Your task to perform on an android device: Search for sushi restaurants on Maps Image 0: 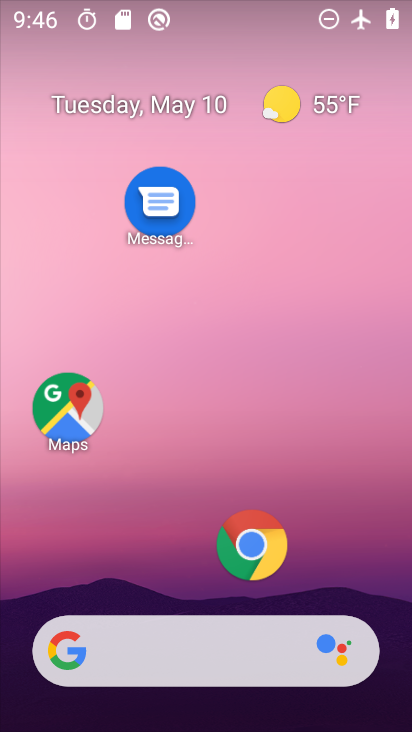
Step 0: drag from (177, 587) to (174, 484)
Your task to perform on an android device: Search for sushi restaurants on Maps Image 1: 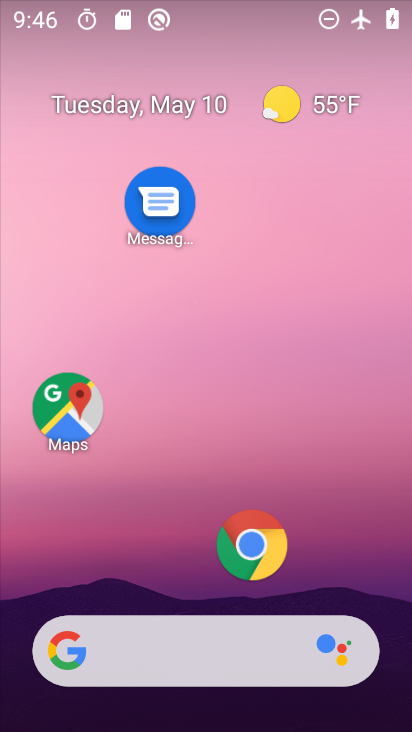
Step 1: click (43, 433)
Your task to perform on an android device: Search for sushi restaurants on Maps Image 2: 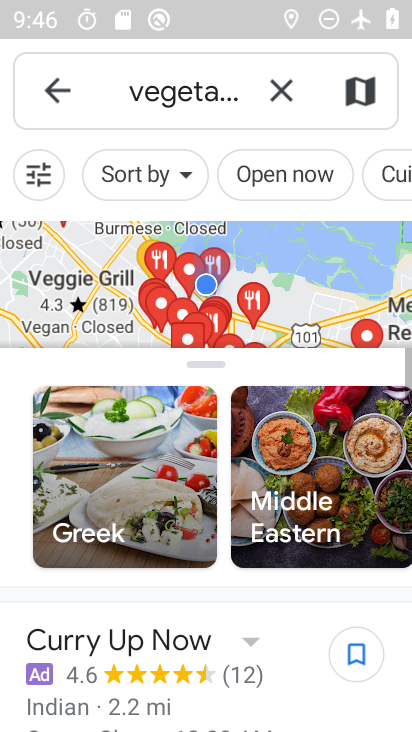
Step 2: click (279, 99)
Your task to perform on an android device: Search for sushi restaurants on Maps Image 3: 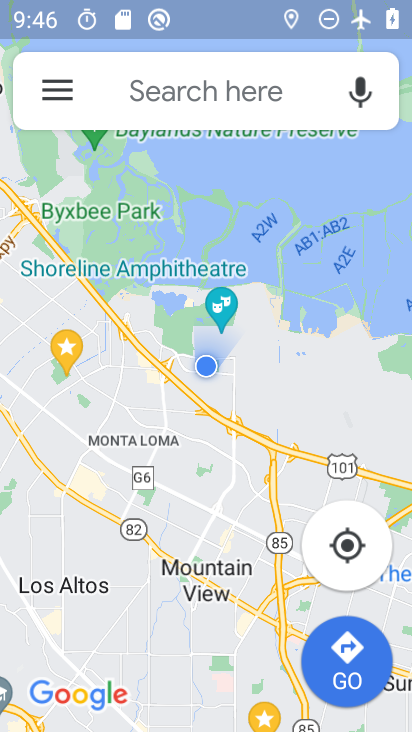
Step 3: click (279, 99)
Your task to perform on an android device: Search for sushi restaurants on Maps Image 4: 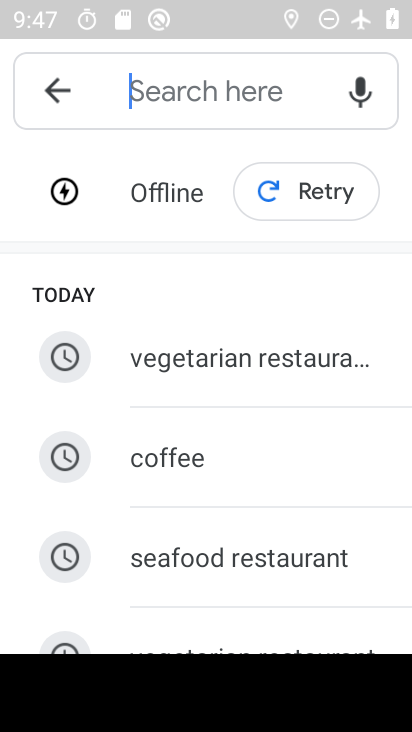
Step 4: type "sushi restaurants"
Your task to perform on an android device: Search for sushi restaurants on Maps Image 5: 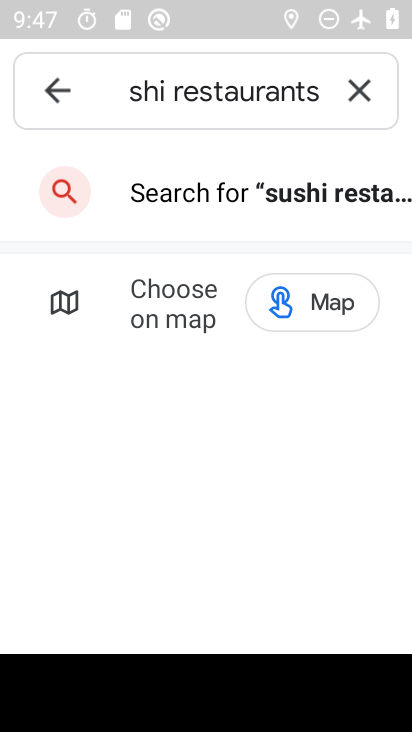
Step 5: task complete